Your task to perform on an android device: stop showing notifications on the lock screen Image 0: 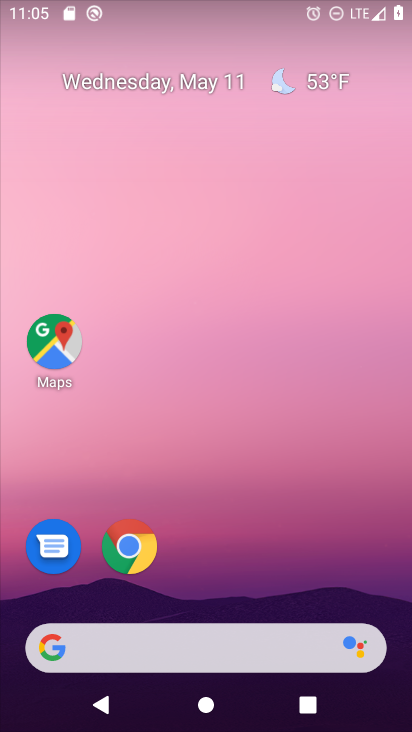
Step 0: drag from (403, 621) to (245, 47)
Your task to perform on an android device: stop showing notifications on the lock screen Image 1: 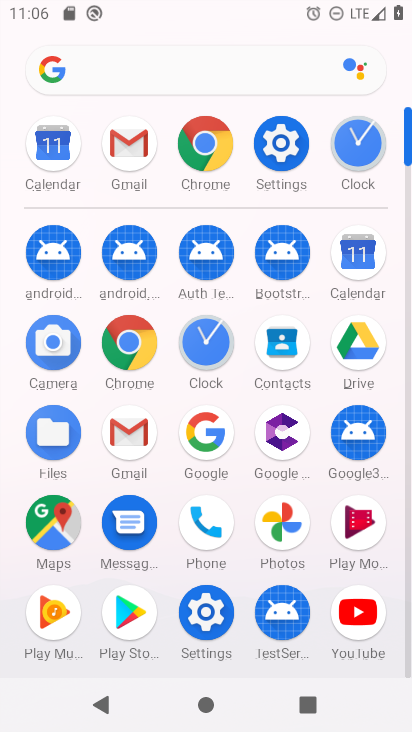
Step 1: click (212, 603)
Your task to perform on an android device: stop showing notifications on the lock screen Image 2: 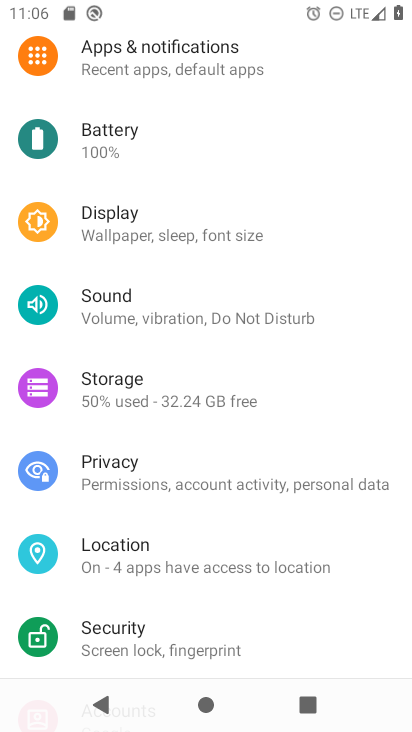
Step 2: click (220, 50)
Your task to perform on an android device: stop showing notifications on the lock screen Image 3: 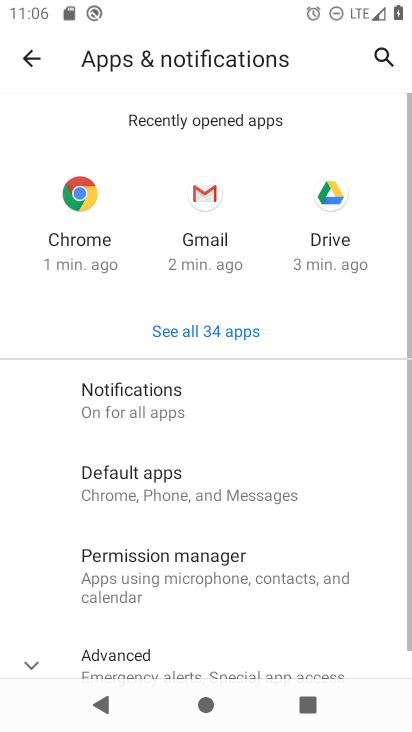
Step 3: click (199, 427)
Your task to perform on an android device: stop showing notifications on the lock screen Image 4: 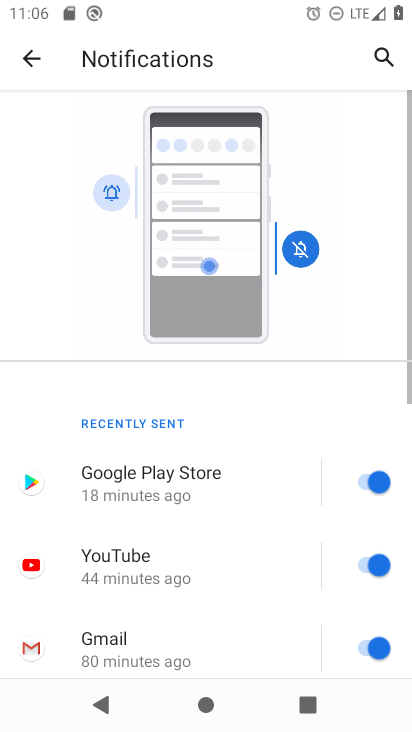
Step 4: drag from (147, 580) to (258, 103)
Your task to perform on an android device: stop showing notifications on the lock screen Image 5: 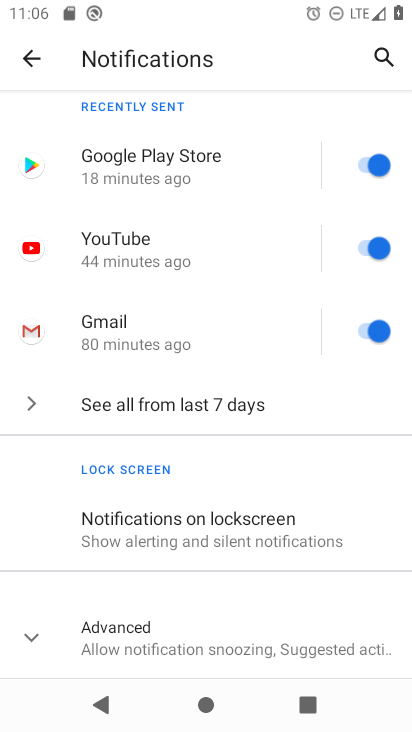
Step 5: click (170, 534)
Your task to perform on an android device: stop showing notifications on the lock screen Image 6: 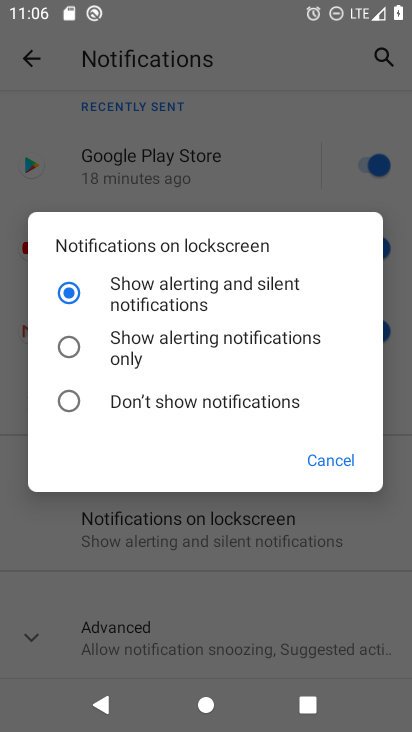
Step 6: click (145, 411)
Your task to perform on an android device: stop showing notifications on the lock screen Image 7: 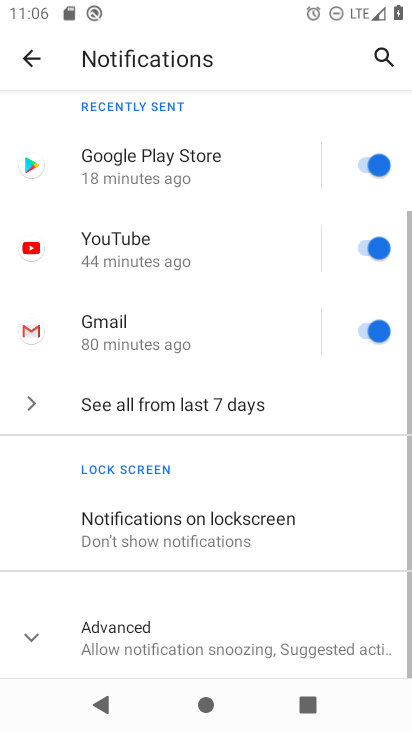
Step 7: task complete